Your task to perform on an android device: Go to privacy settings Image 0: 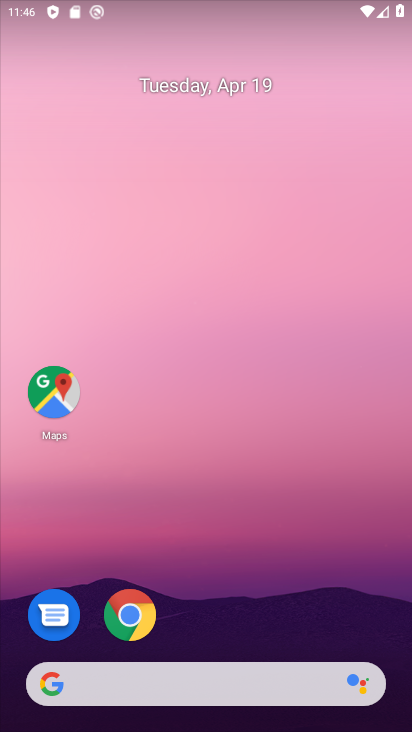
Step 0: click (135, 610)
Your task to perform on an android device: Go to privacy settings Image 1: 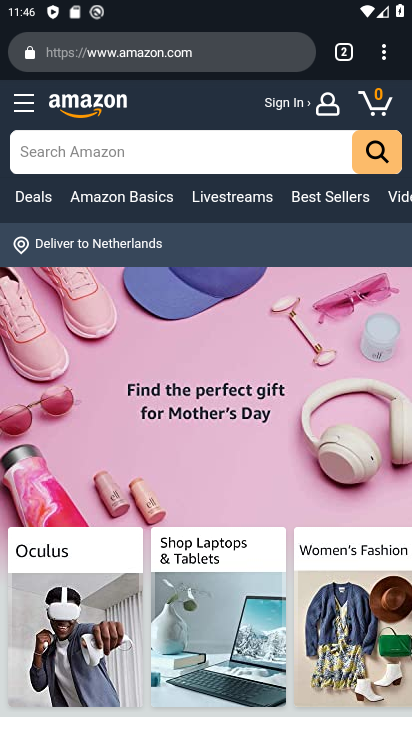
Step 1: click (379, 48)
Your task to perform on an android device: Go to privacy settings Image 2: 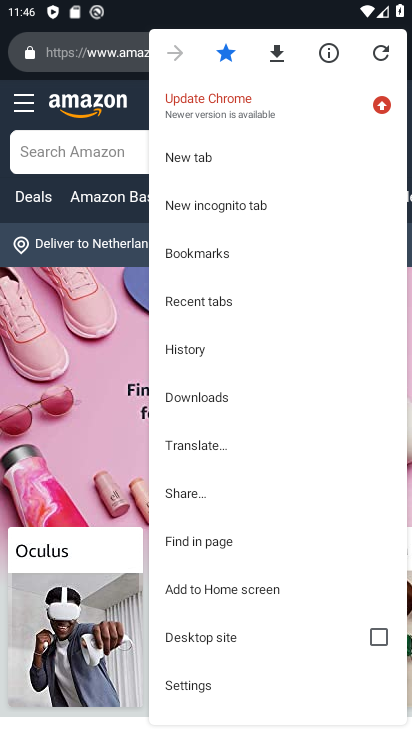
Step 2: click (202, 683)
Your task to perform on an android device: Go to privacy settings Image 3: 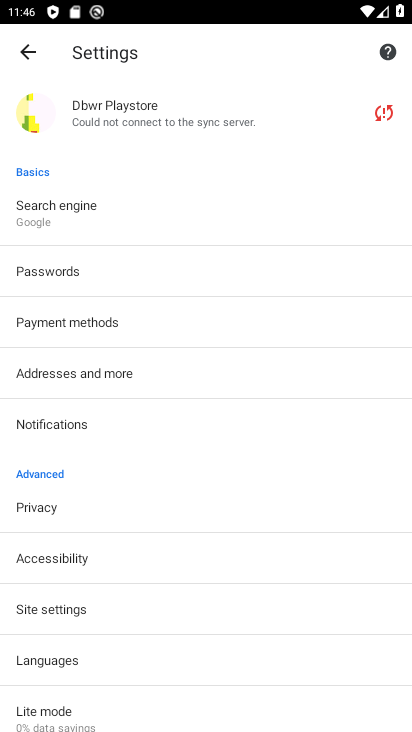
Step 3: click (155, 505)
Your task to perform on an android device: Go to privacy settings Image 4: 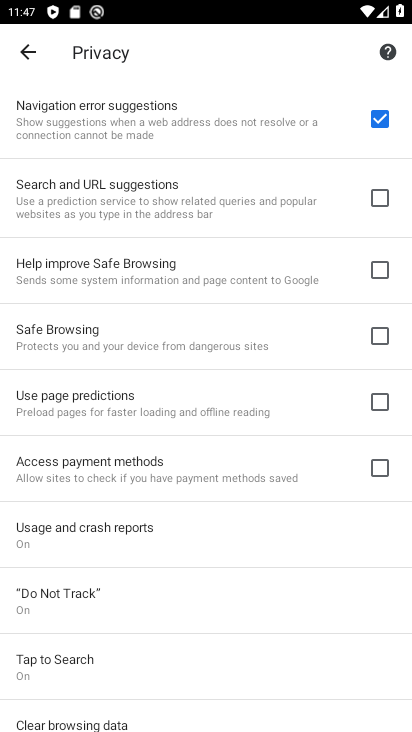
Step 4: task complete